Your task to perform on an android device: Add "macbook pro" to the cart on costco.com, then select checkout. Image 0: 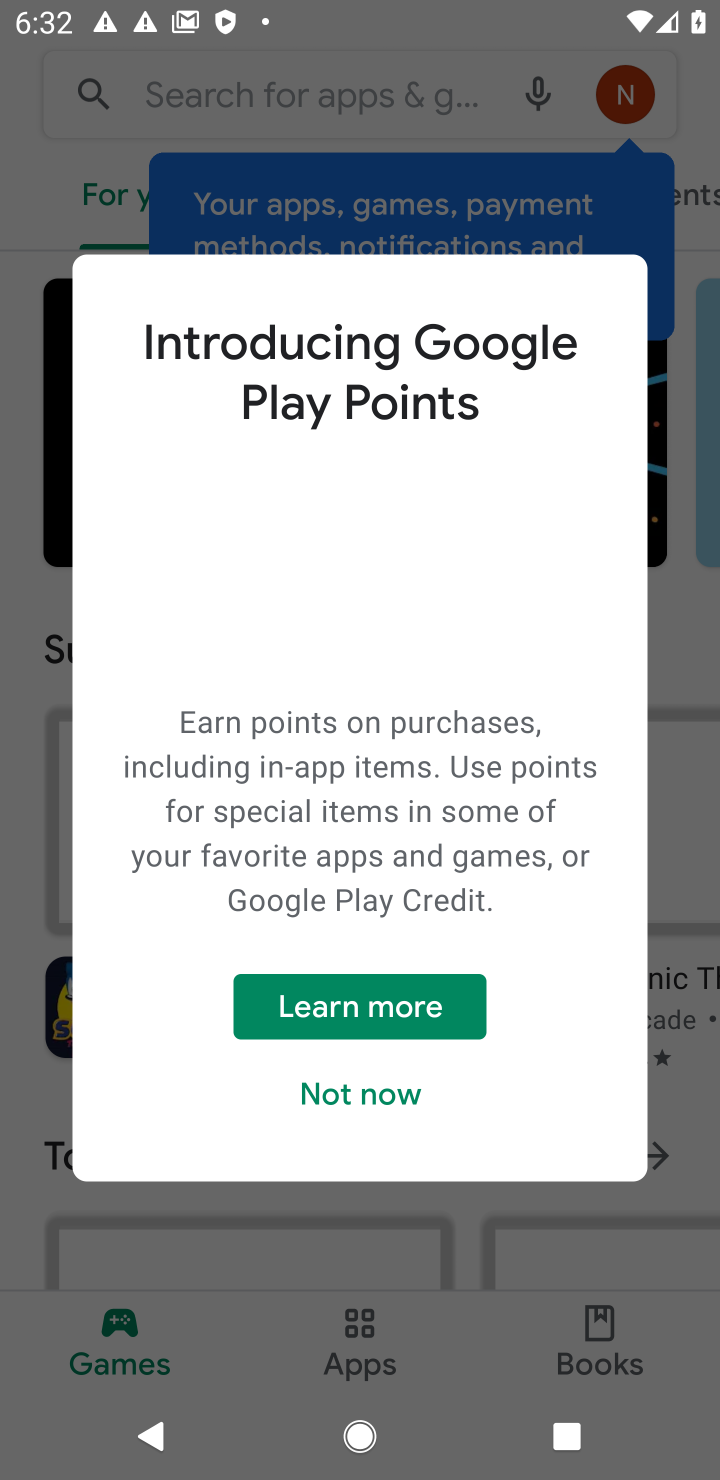
Step 0: press home button
Your task to perform on an android device: Add "macbook pro" to the cart on costco.com, then select checkout. Image 1: 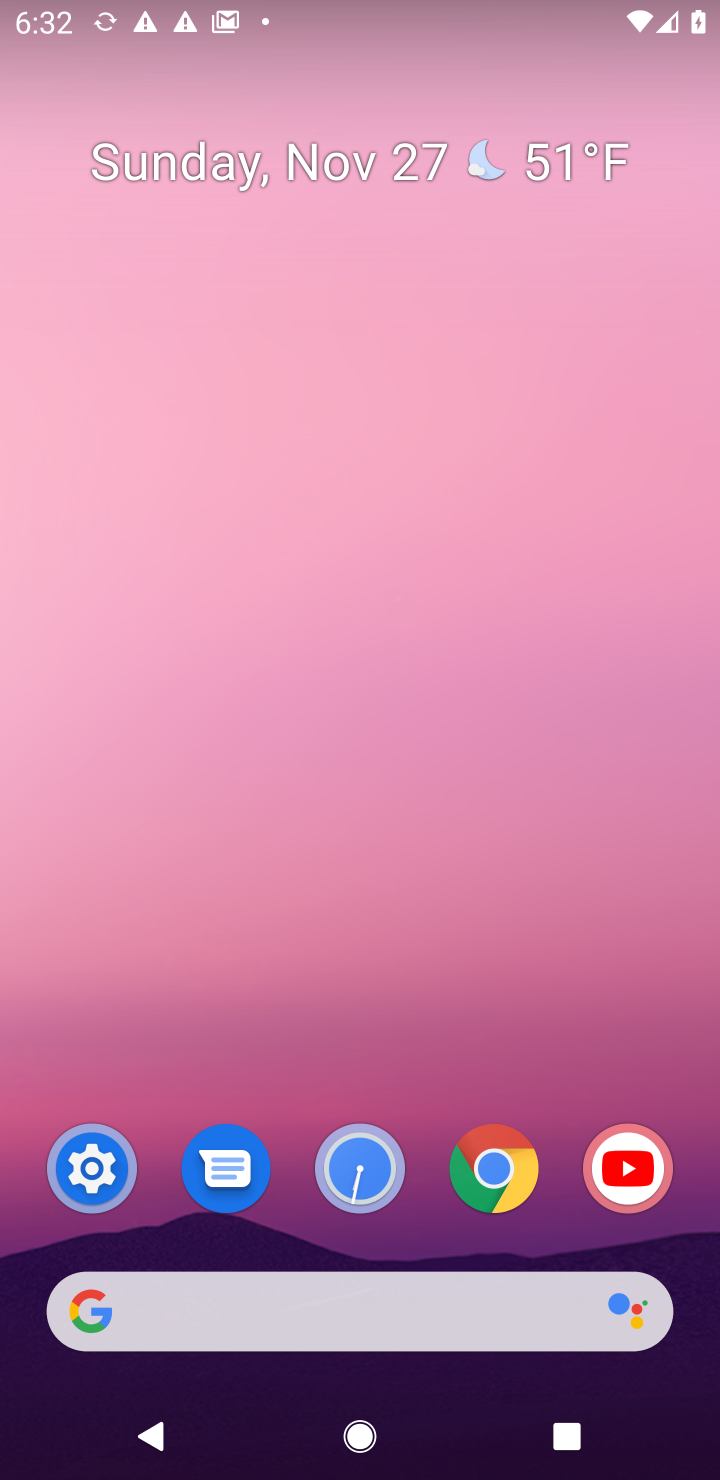
Step 1: click (492, 1167)
Your task to perform on an android device: Add "macbook pro" to the cart on costco.com, then select checkout. Image 2: 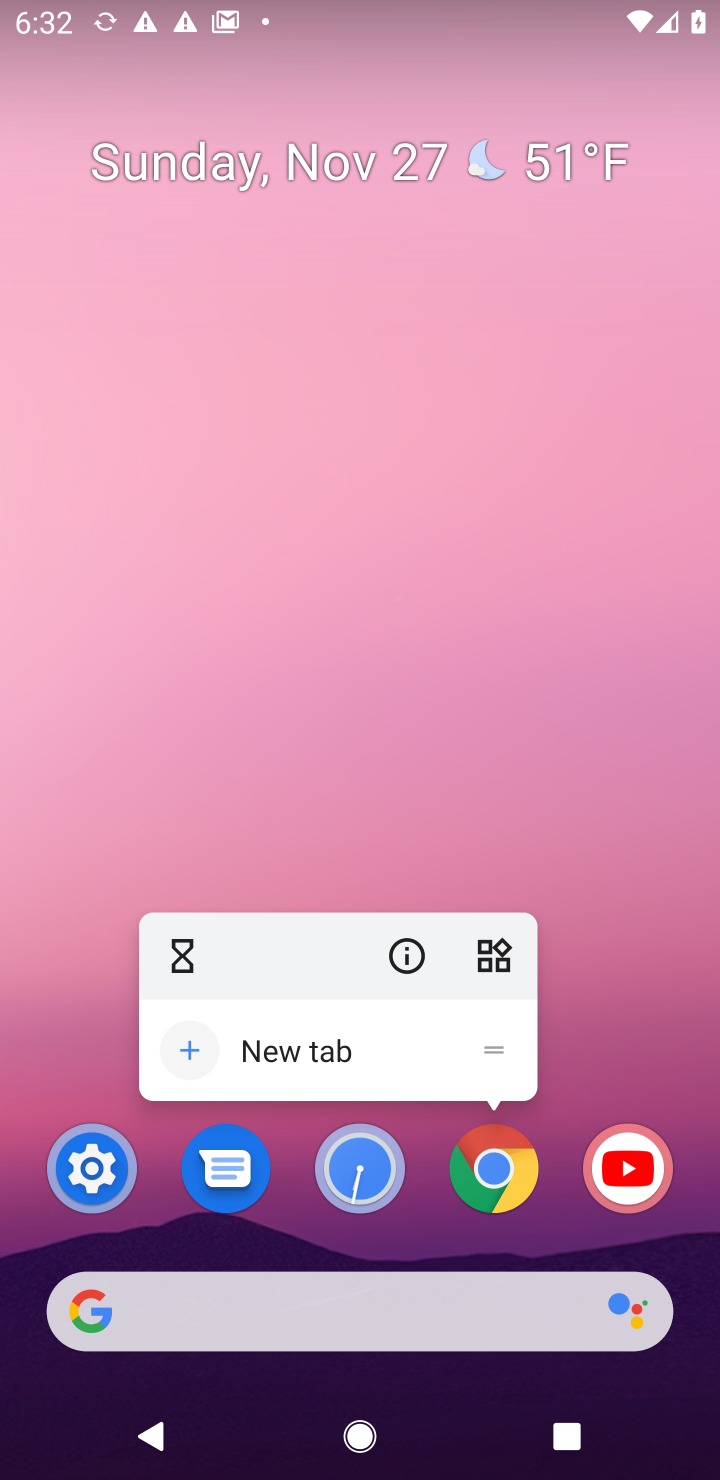
Step 2: click (492, 1167)
Your task to perform on an android device: Add "macbook pro" to the cart on costco.com, then select checkout. Image 3: 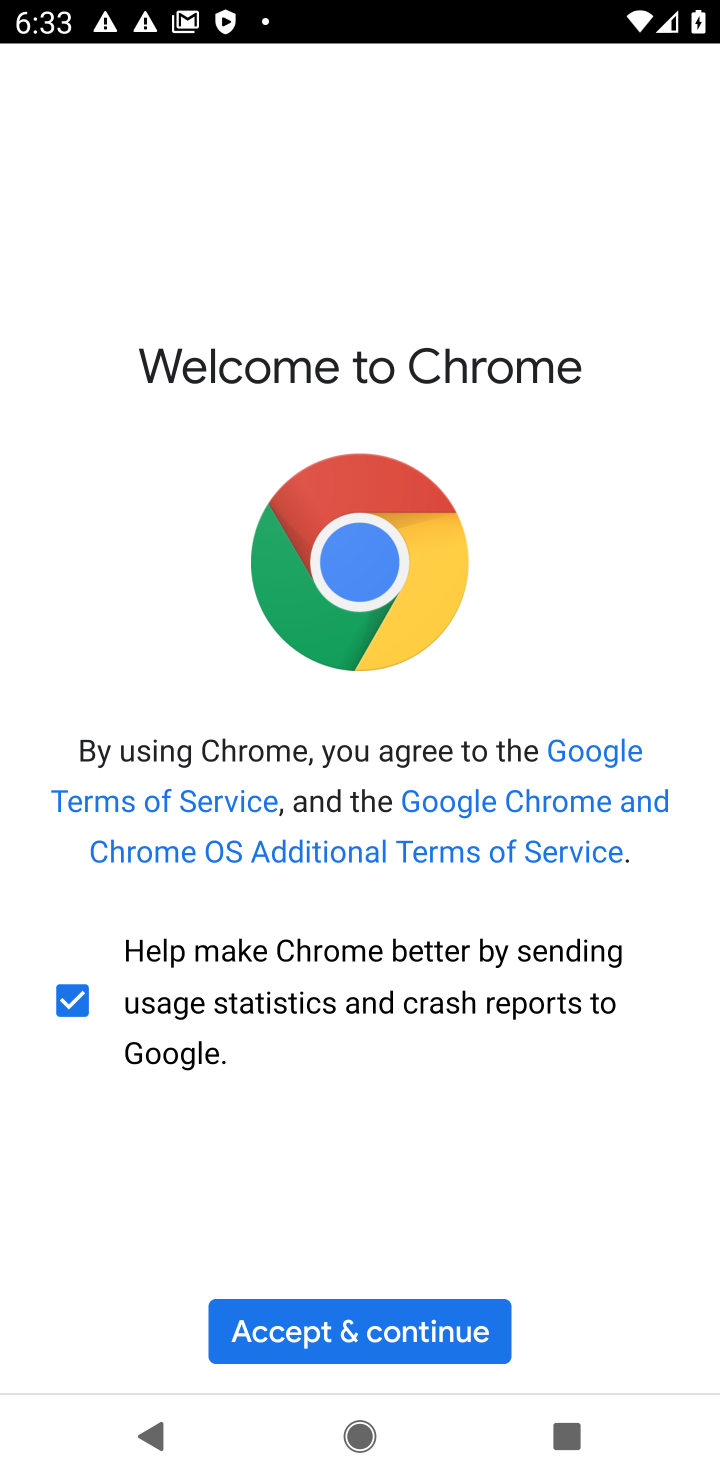
Step 3: click (320, 1326)
Your task to perform on an android device: Add "macbook pro" to the cart on costco.com, then select checkout. Image 4: 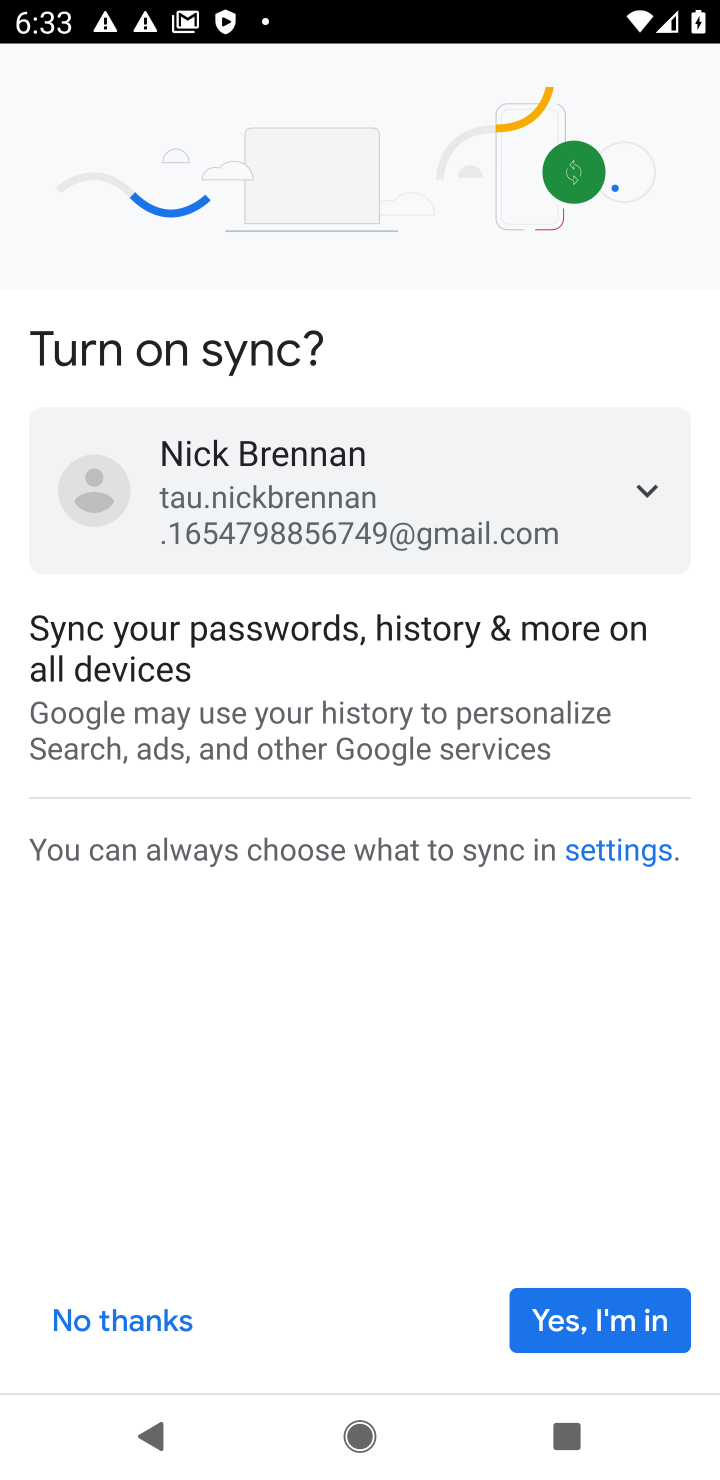
Step 4: click (566, 1316)
Your task to perform on an android device: Add "macbook pro" to the cart on costco.com, then select checkout. Image 5: 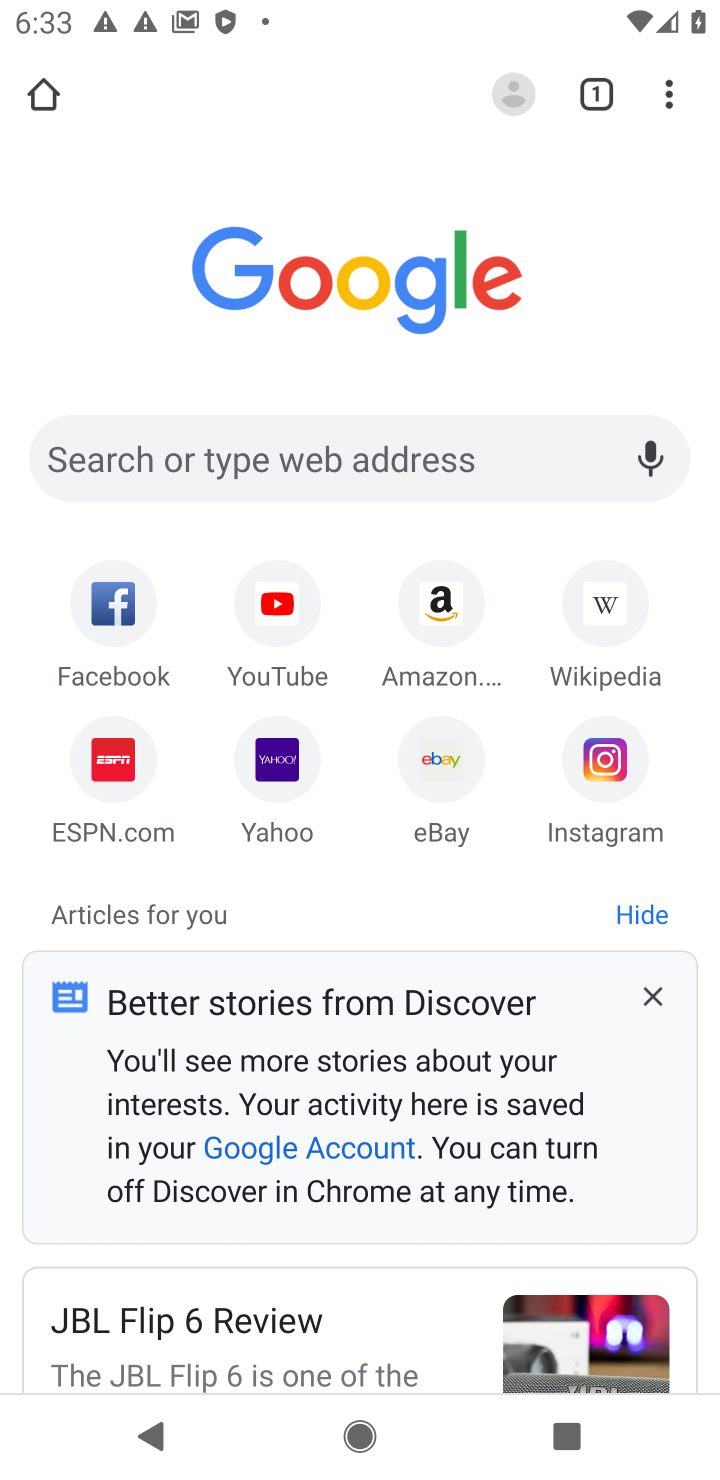
Step 5: click (497, 444)
Your task to perform on an android device: Add "macbook pro" to the cart on costco.com, then select checkout. Image 6: 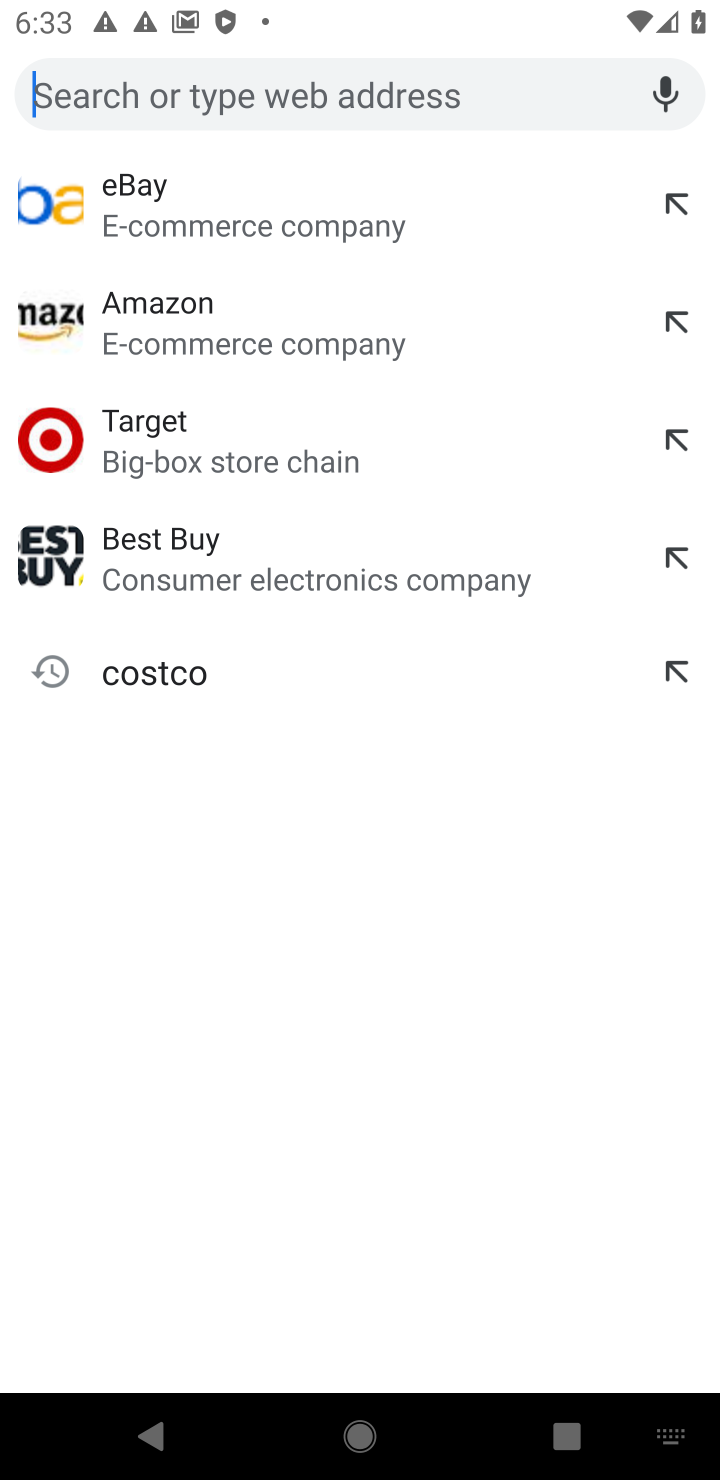
Step 6: type "costco.com"
Your task to perform on an android device: Add "macbook pro" to the cart on costco.com, then select checkout. Image 7: 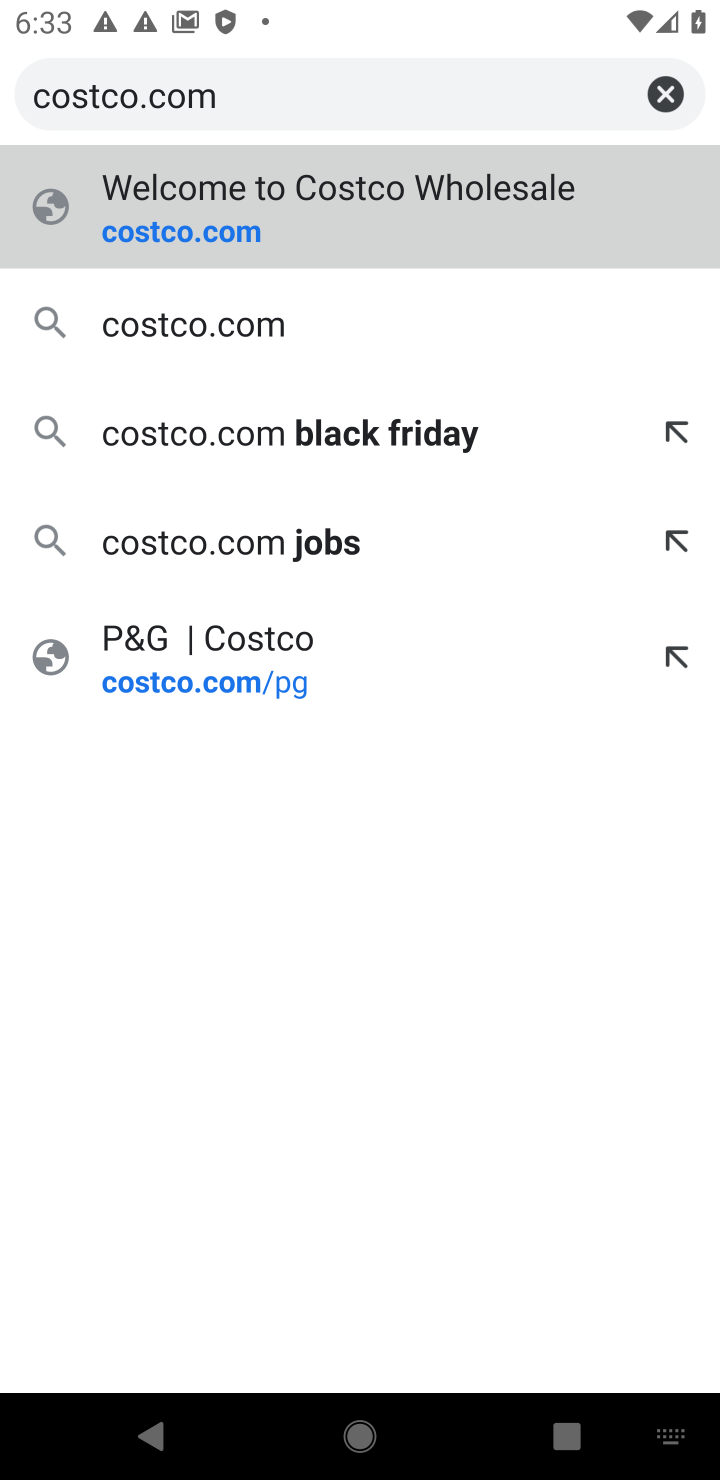
Step 7: click (137, 326)
Your task to perform on an android device: Add "macbook pro" to the cart on costco.com, then select checkout. Image 8: 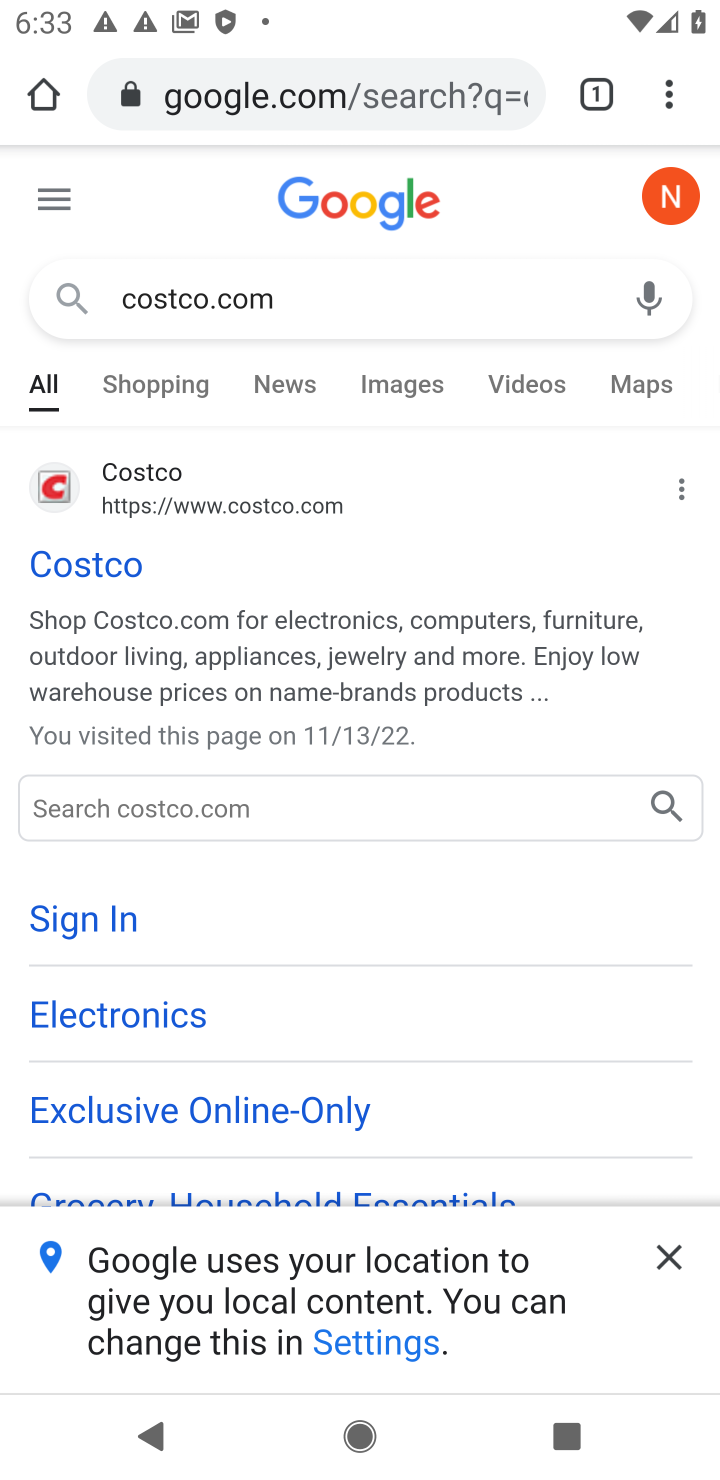
Step 8: click (671, 1250)
Your task to perform on an android device: Add "macbook pro" to the cart on costco.com, then select checkout. Image 9: 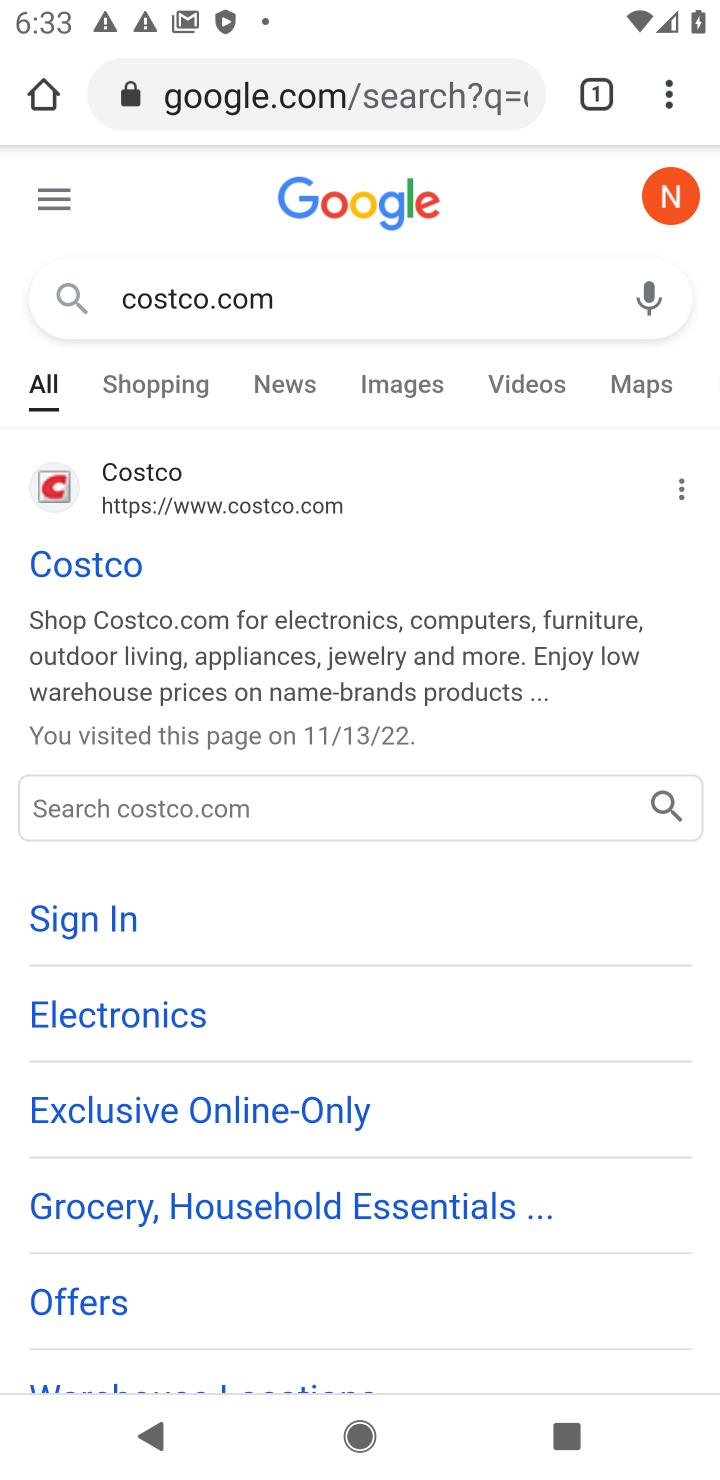
Step 9: click (154, 537)
Your task to perform on an android device: Add "macbook pro" to the cart on costco.com, then select checkout. Image 10: 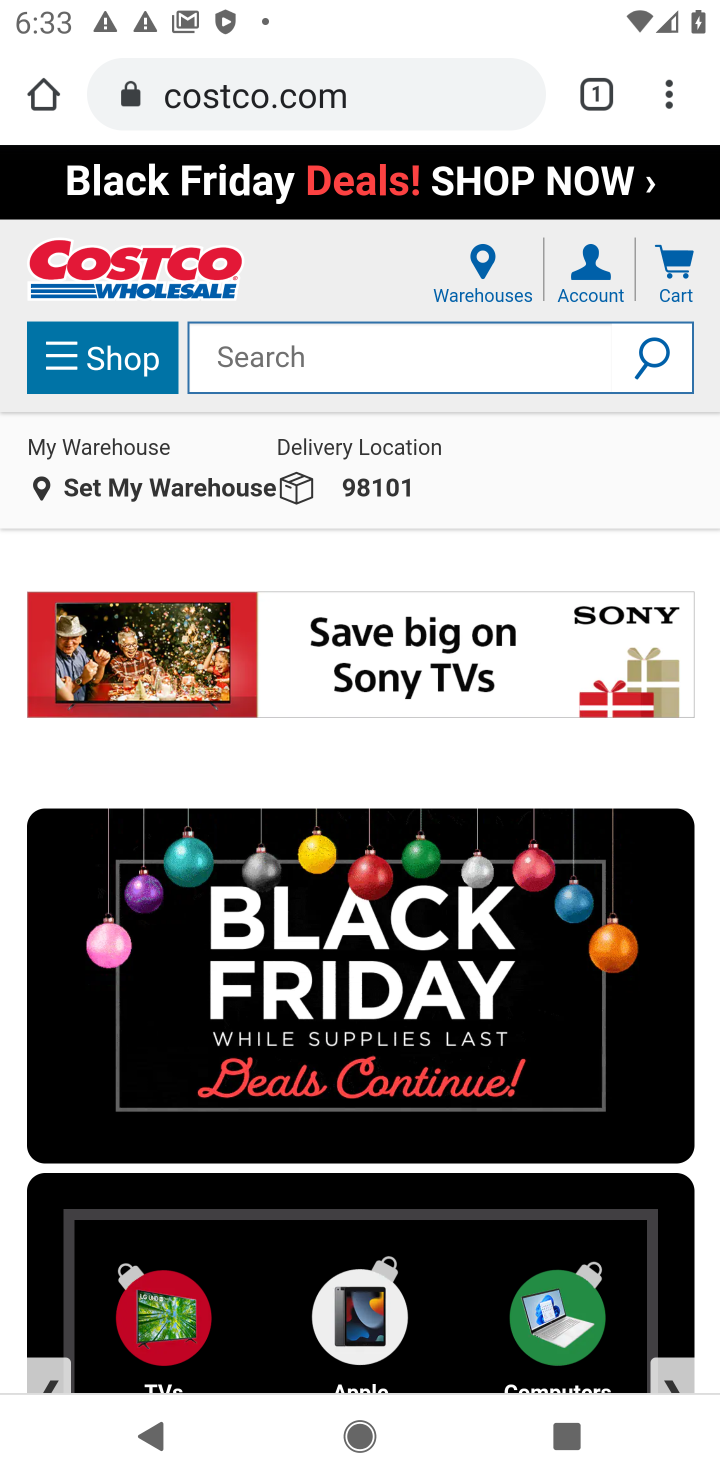
Step 10: click (413, 343)
Your task to perform on an android device: Add "macbook pro" to the cart on costco.com, then select checkout. Image 11: 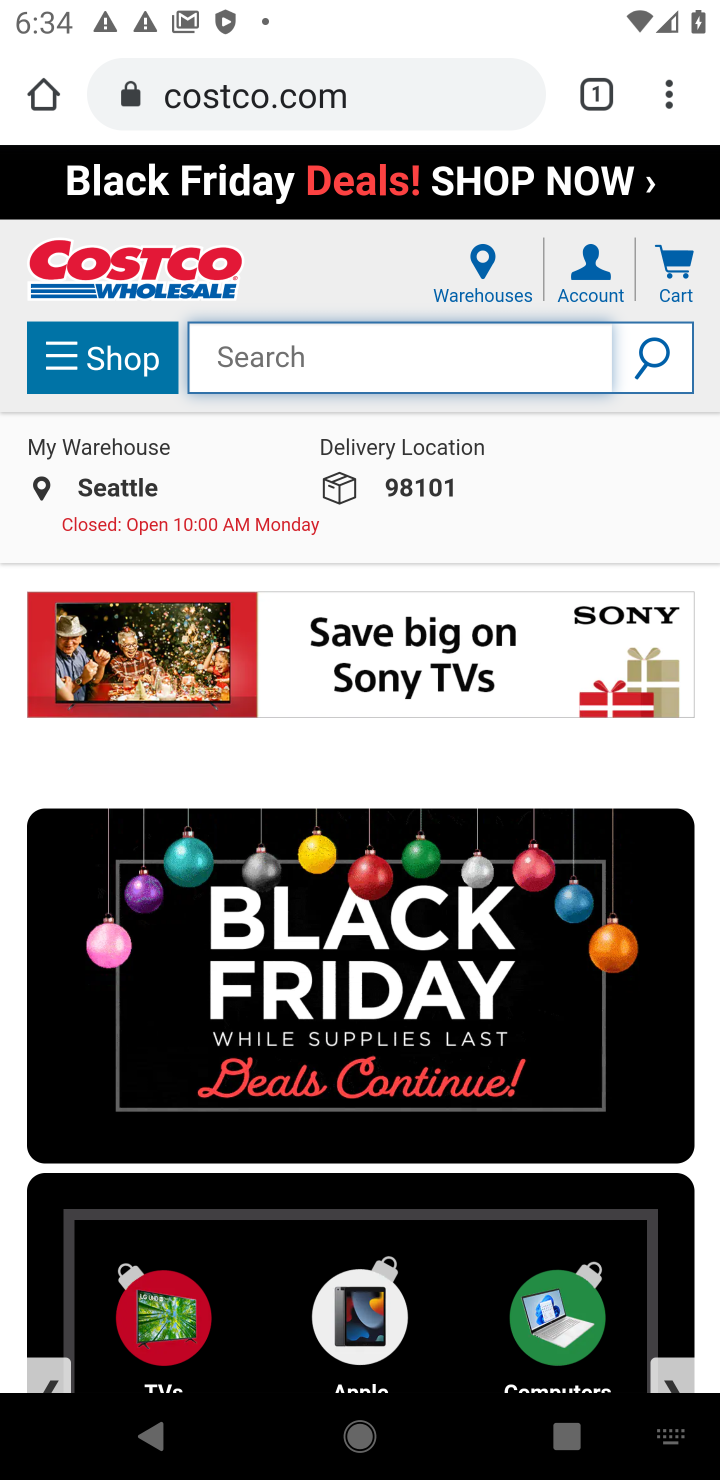
Step 11: type "macbook pro"
Your task to perform on an android device: Add "macbook pro" to the cart on costco.com, then select checkout. Image 12: 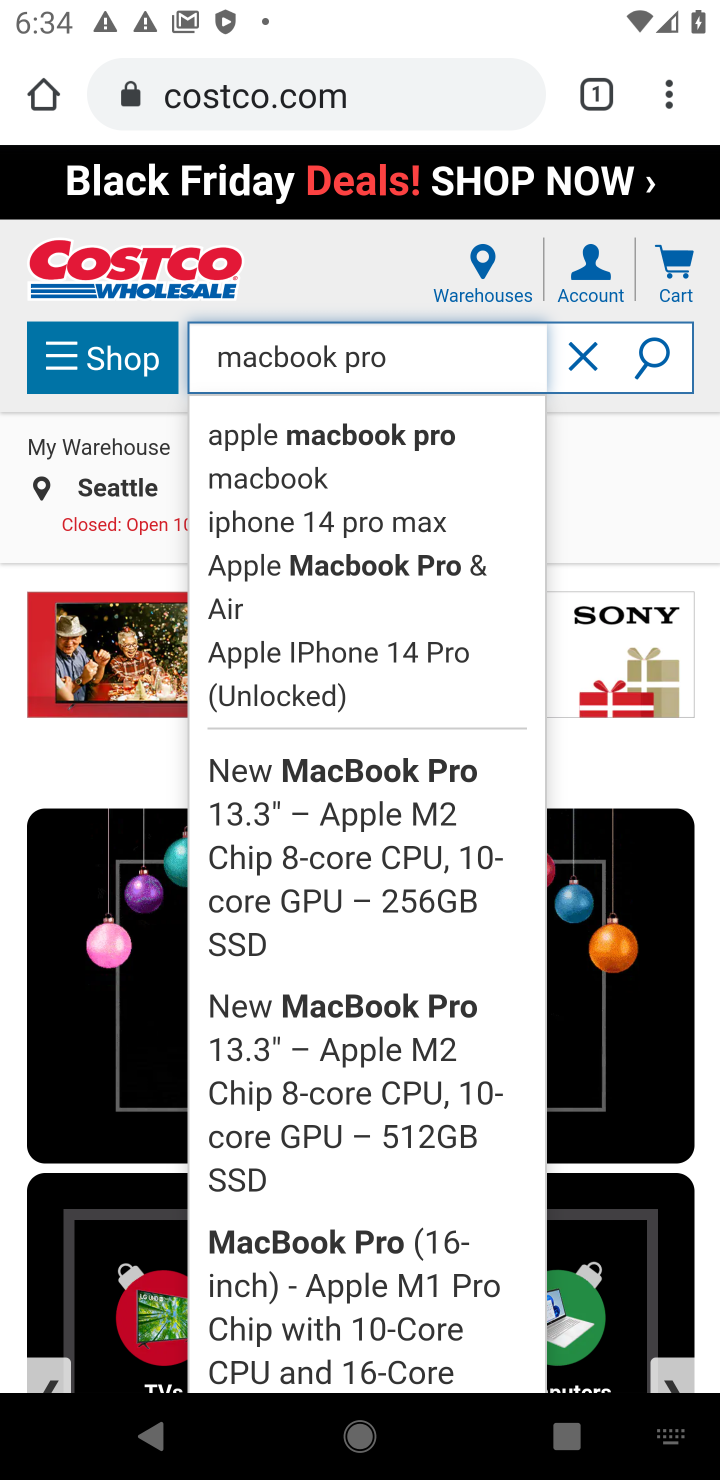
Step 12: click (367, 446)
Your task to perform on an android device: Add "macbook pro" to the cart on costco.com, then select checkout. Image 13: 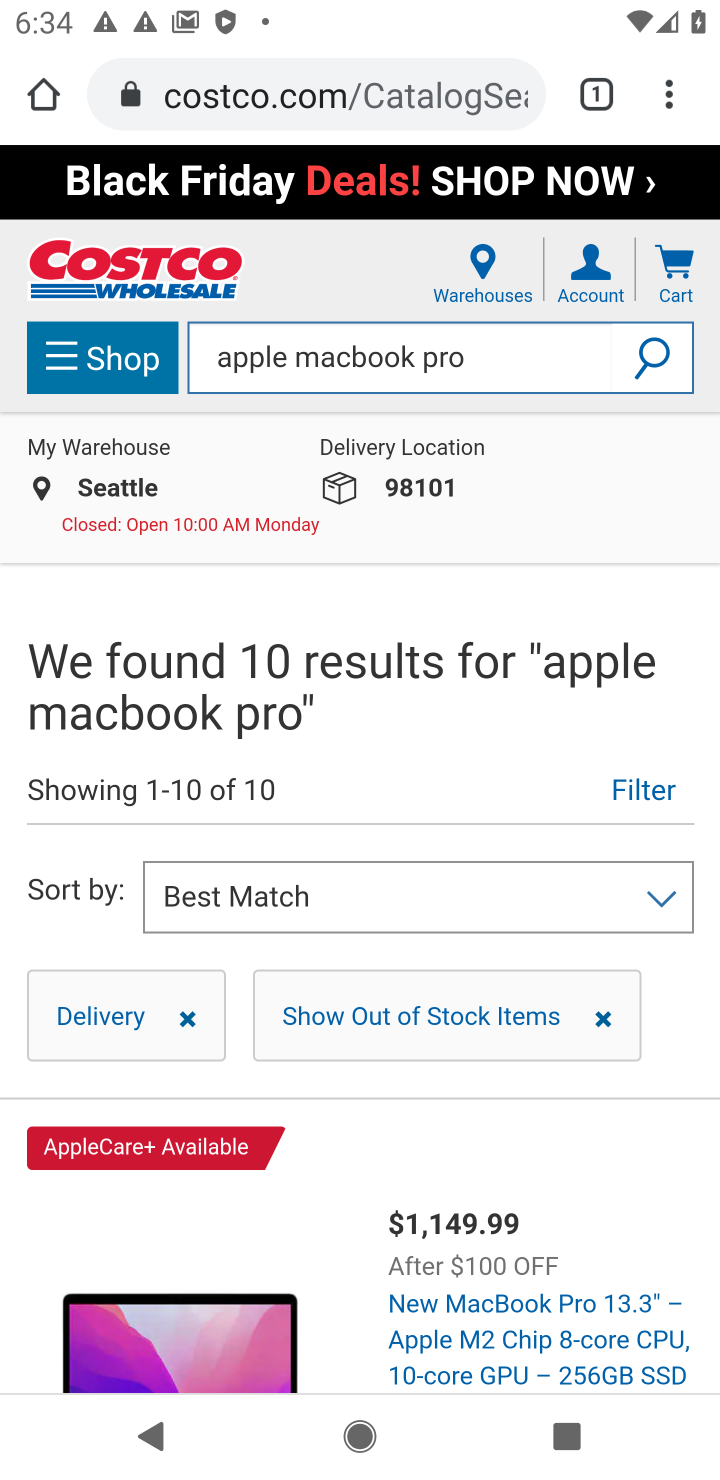
Step 13: drag from (591, 1193) to (685, 641)
Your task to perform on an android device: Add "macbook pro" to the cart on costco.com, then select checkout. Image 14: 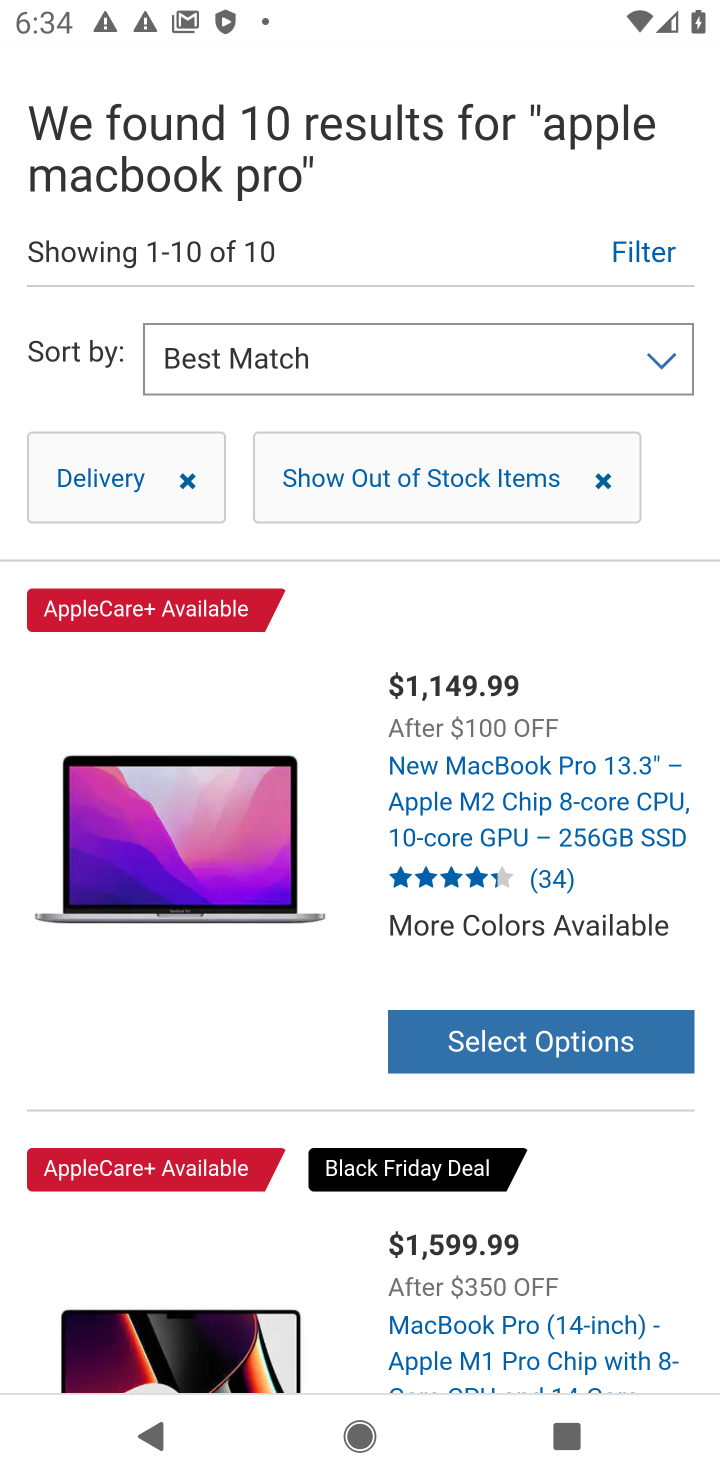
Step 14: click (554, 780)
Your task to perform on an android device: Add "macbook pro" to the cart on costco.com, then select checkout. Image 15: 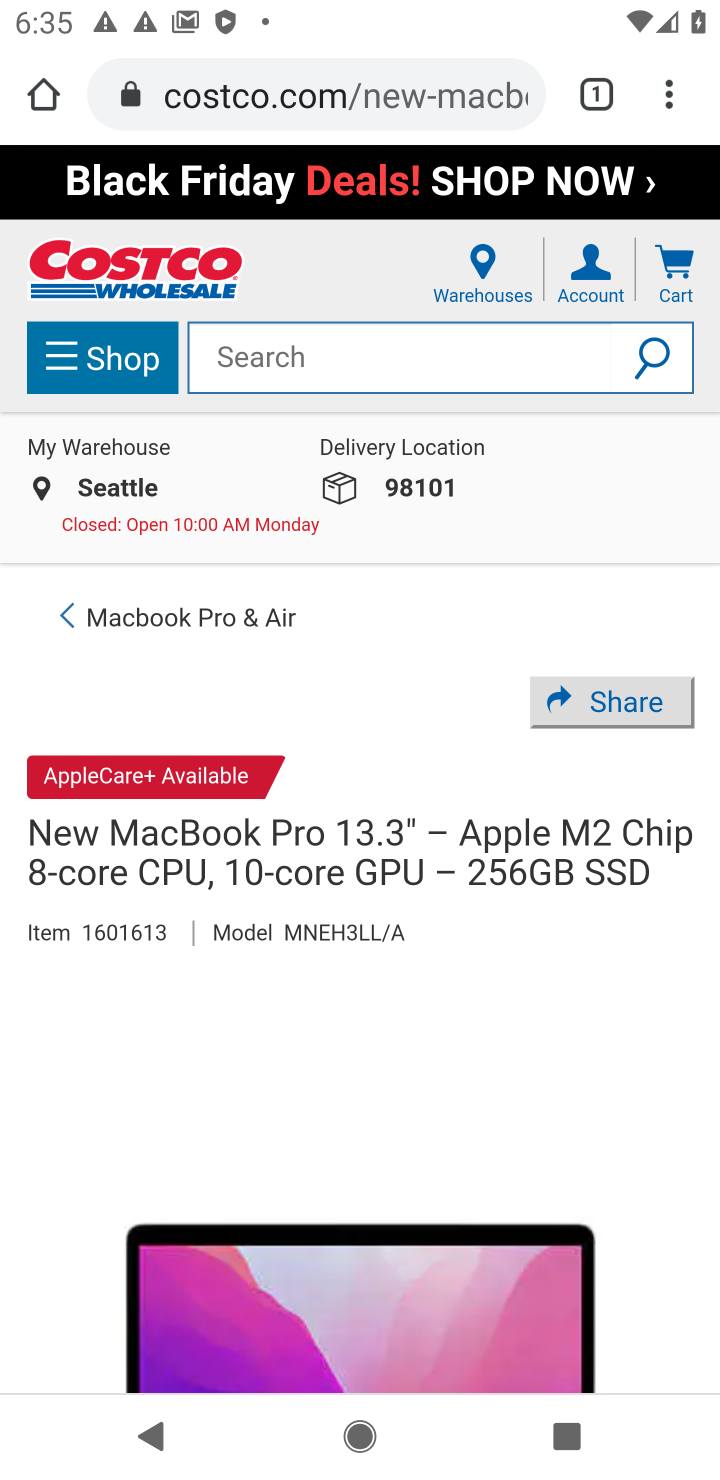
Step 15: drag from (463, 1096) to (605, 436)
Your task to perform on an android device: Add "macbook pro" to the cart on costco.com, then select checkout. Image 16: 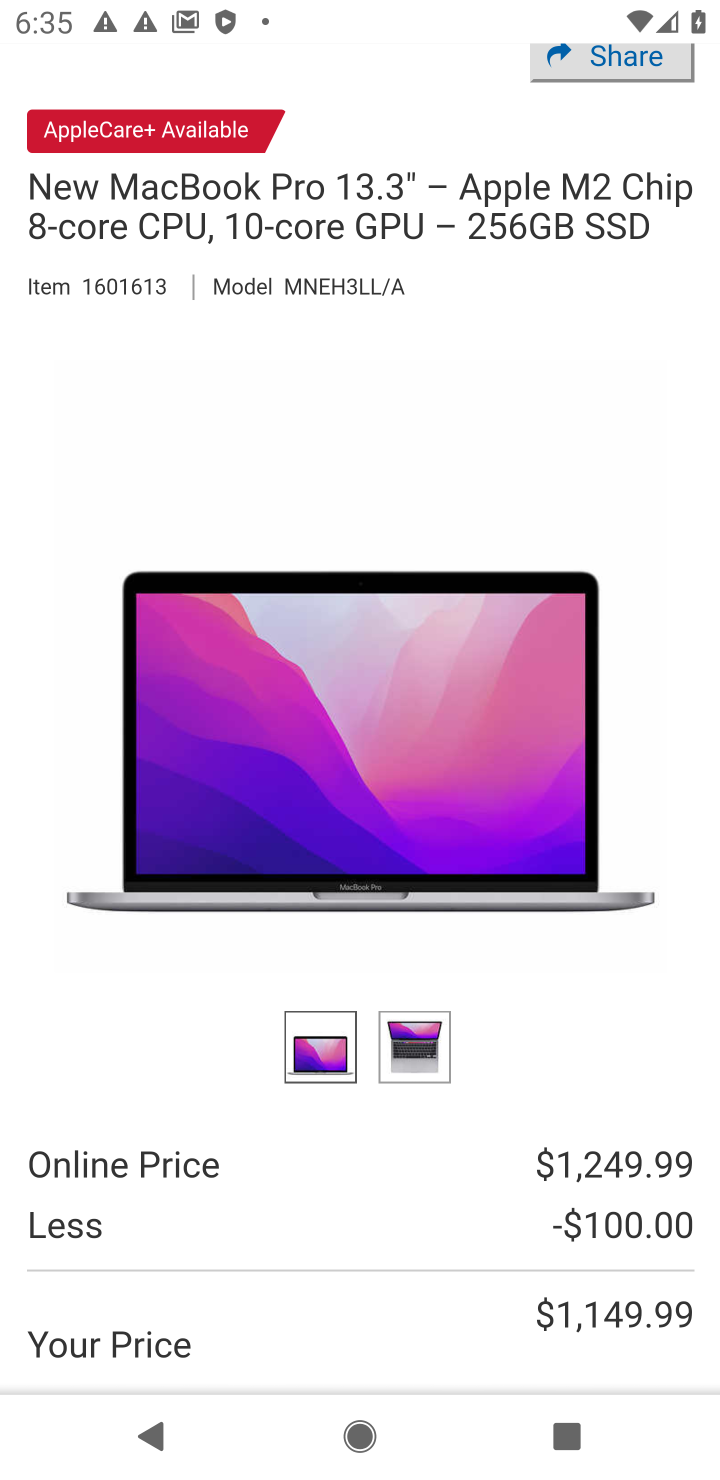
Step 16: drag from (323, 1123) to (481, 680)
Your task to perform on an android device: Add "macbook pro" to the cart on costco.com, then select checkout. Image 17: 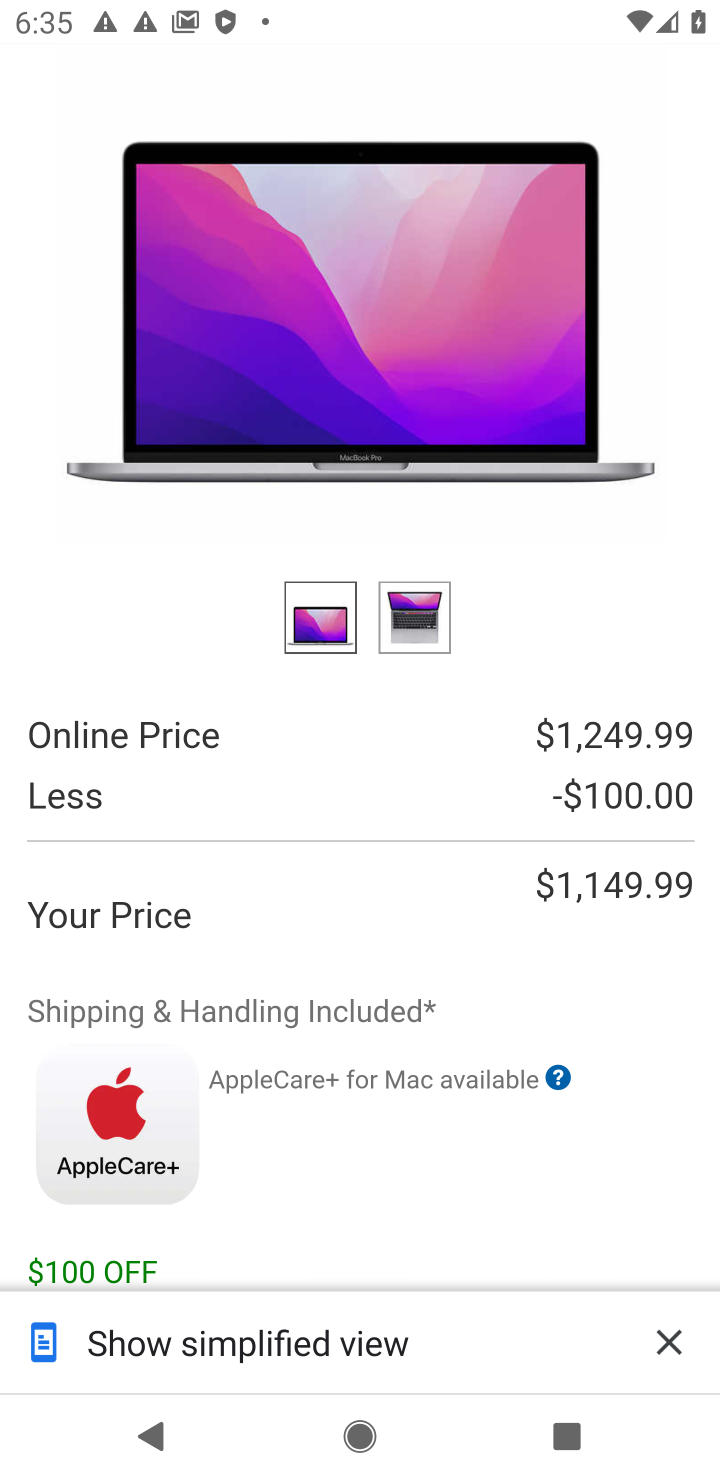
Step 17: drag from (342, 1178) to (428, 715)
Your task to perform on an android device: Add "macbook pro" to the cart on costco.com, then select checkout. Image 18: 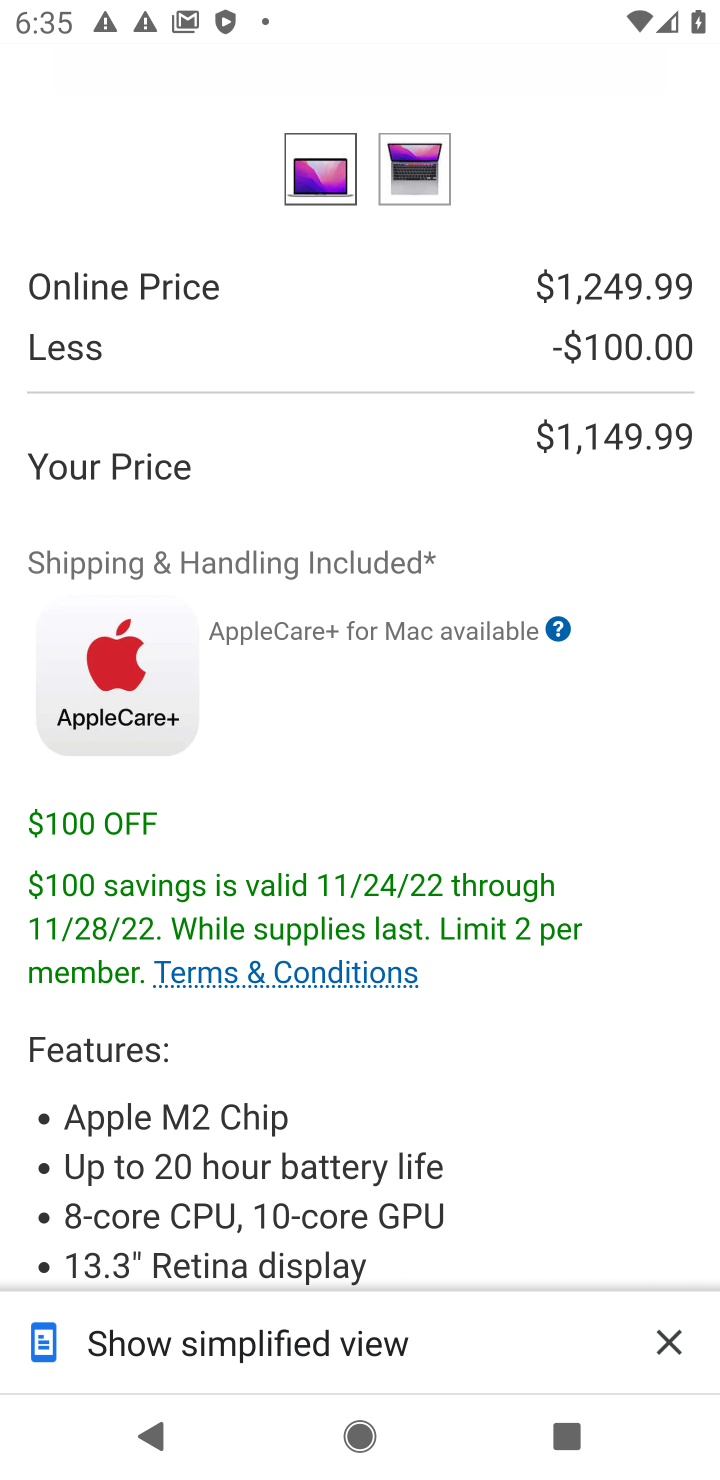
Step 18: drag from (340, 1062) to (519, 640)
Your task to perform on an android device: Add "macbook pro" to the cart on costco.com, then select checkout. Image 19: 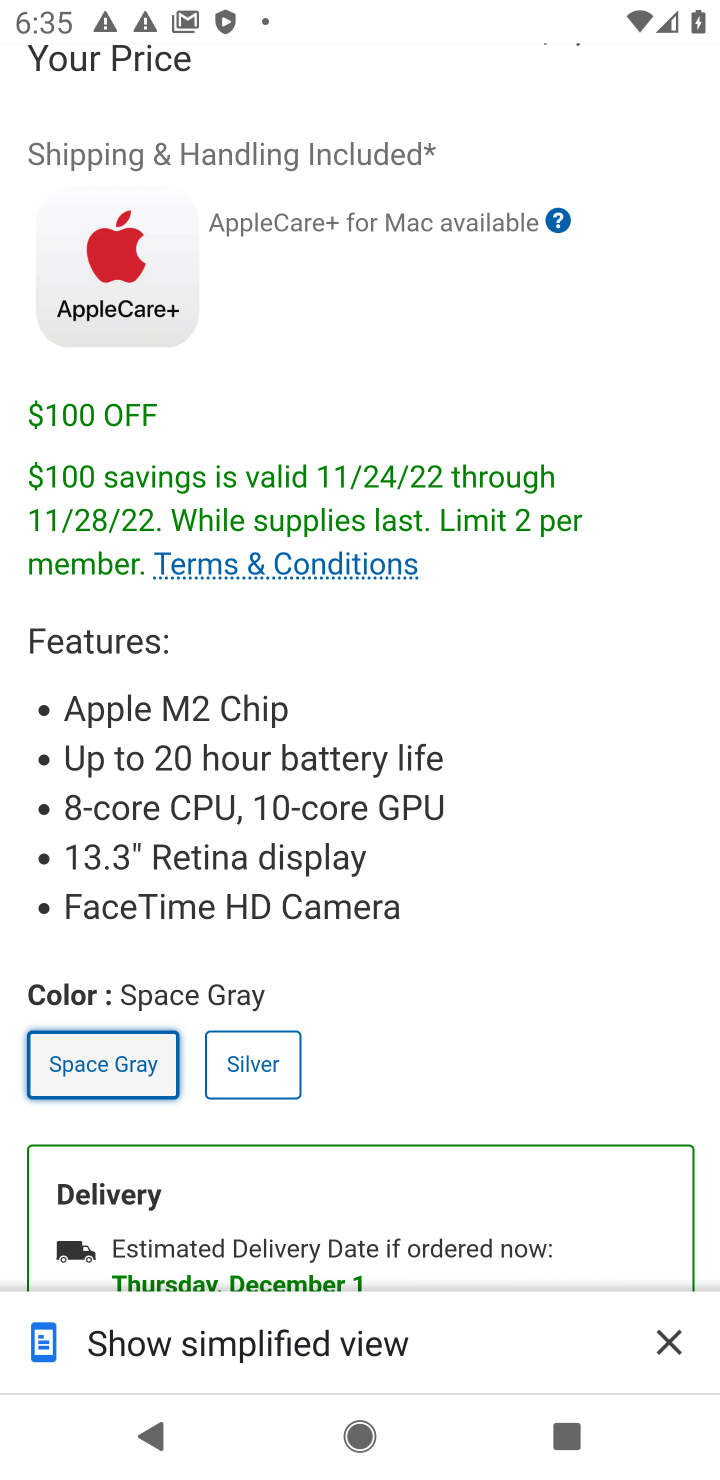
Step 19: drag from (313, 1078) to (391, 699)
Your task to perform on an android device: Add "macbook pro" to the cart on costco.com, then select checkout. Image 20: 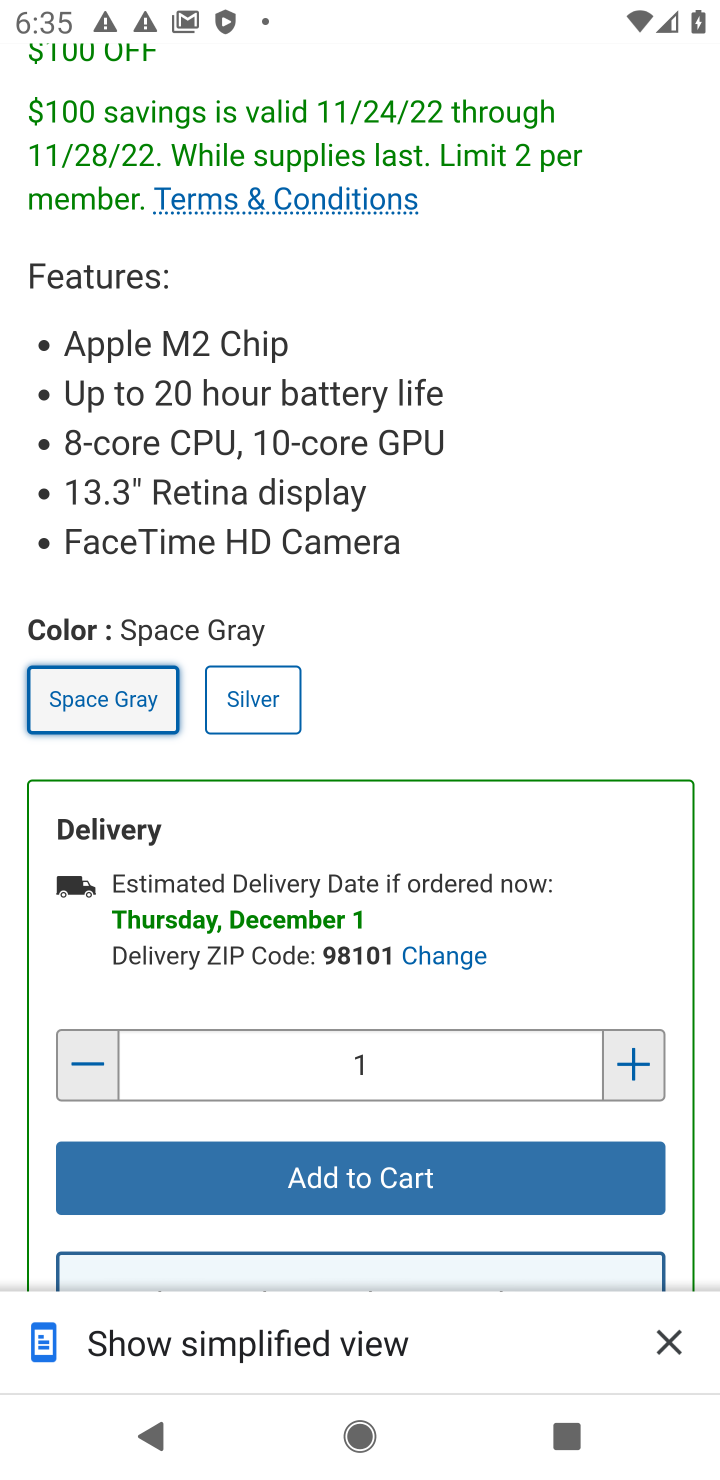
Step 20: drag from (348, 1120) to (549, 476)
Your task to perform on an android device: Add "macbook pro" to the cart on costco.com, then select checkout. Image 21: 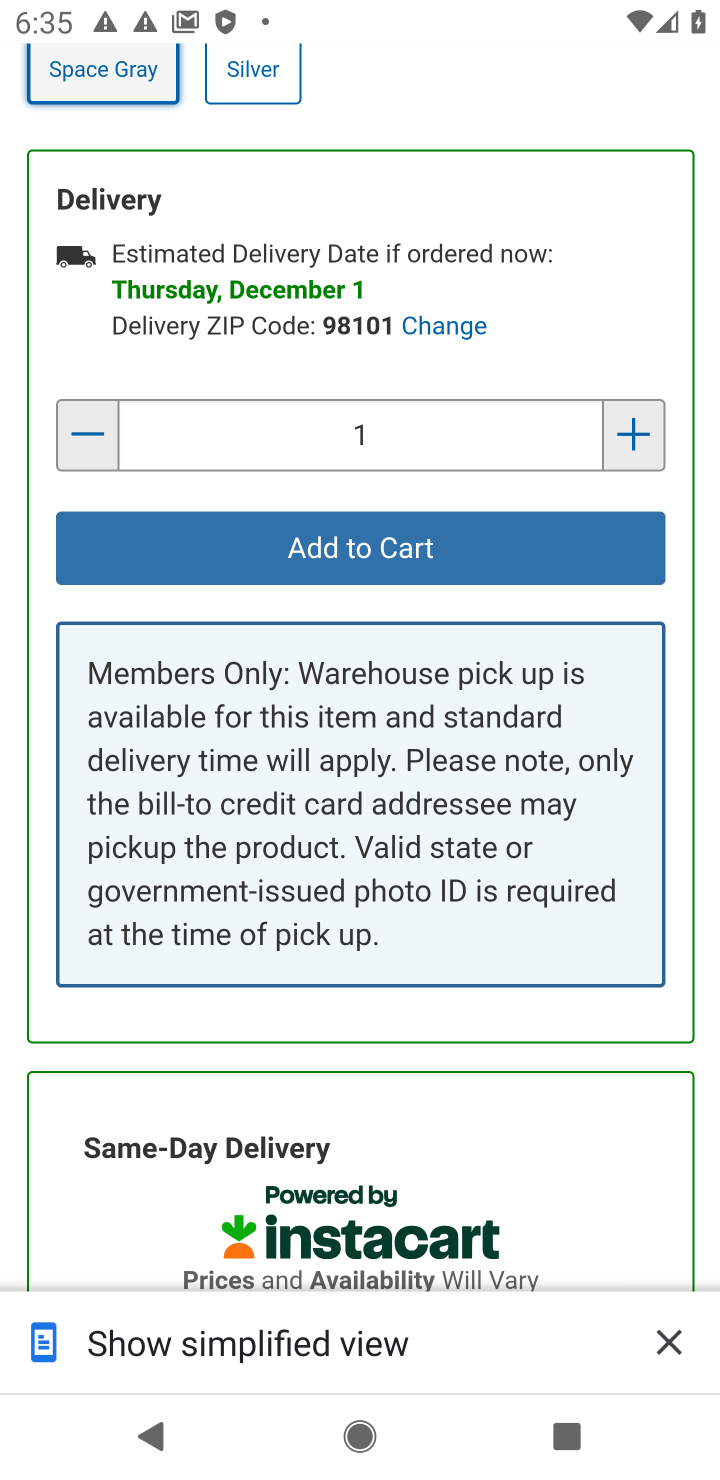
Step 21: drag from (379, 1126) to (545, 437)
Your task to perform on an android device: Add "macbook pro" to the cart on costco.com, then select checkout. Image 22: 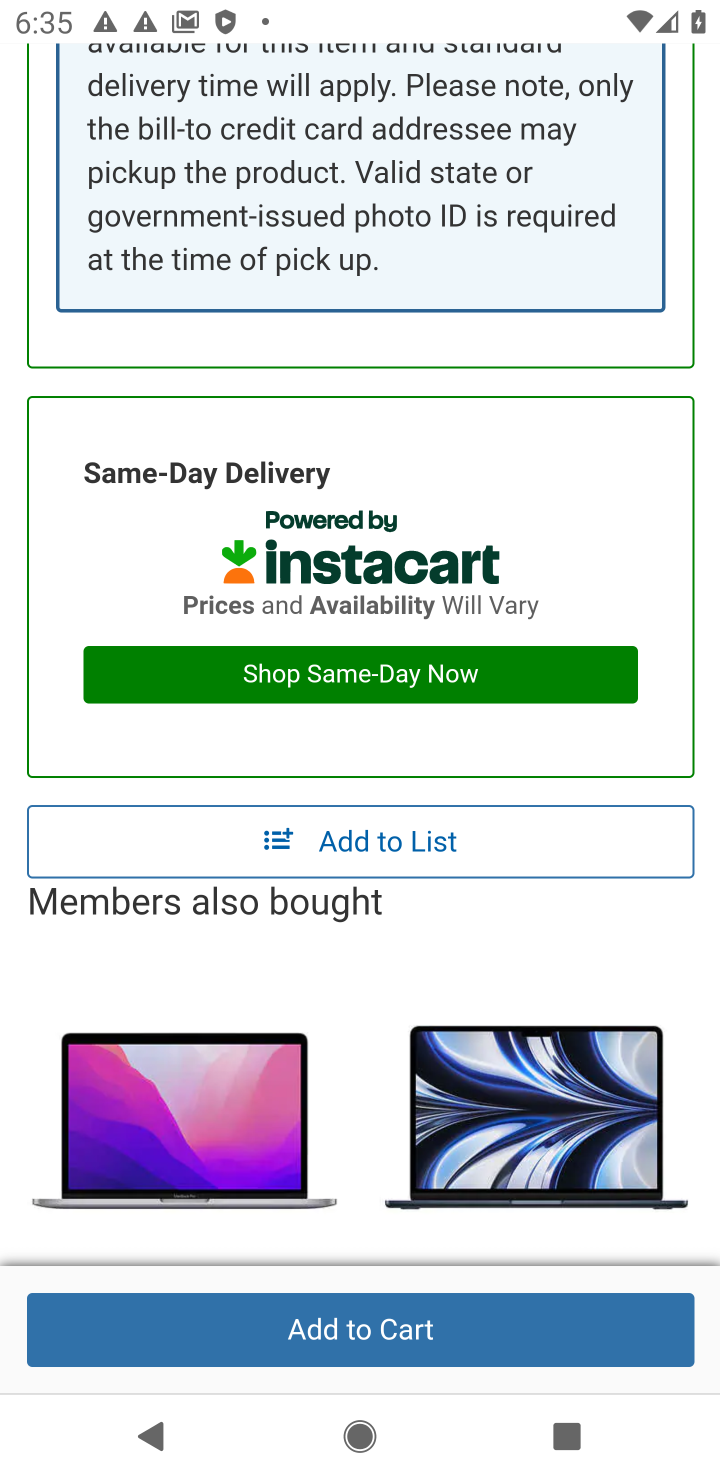
Step 22: drag from (401, 915) to (492, 493)
Your task to perform on an android device: Add "macbook pro" to the cart on costco.com, then select checkout. Image 23: 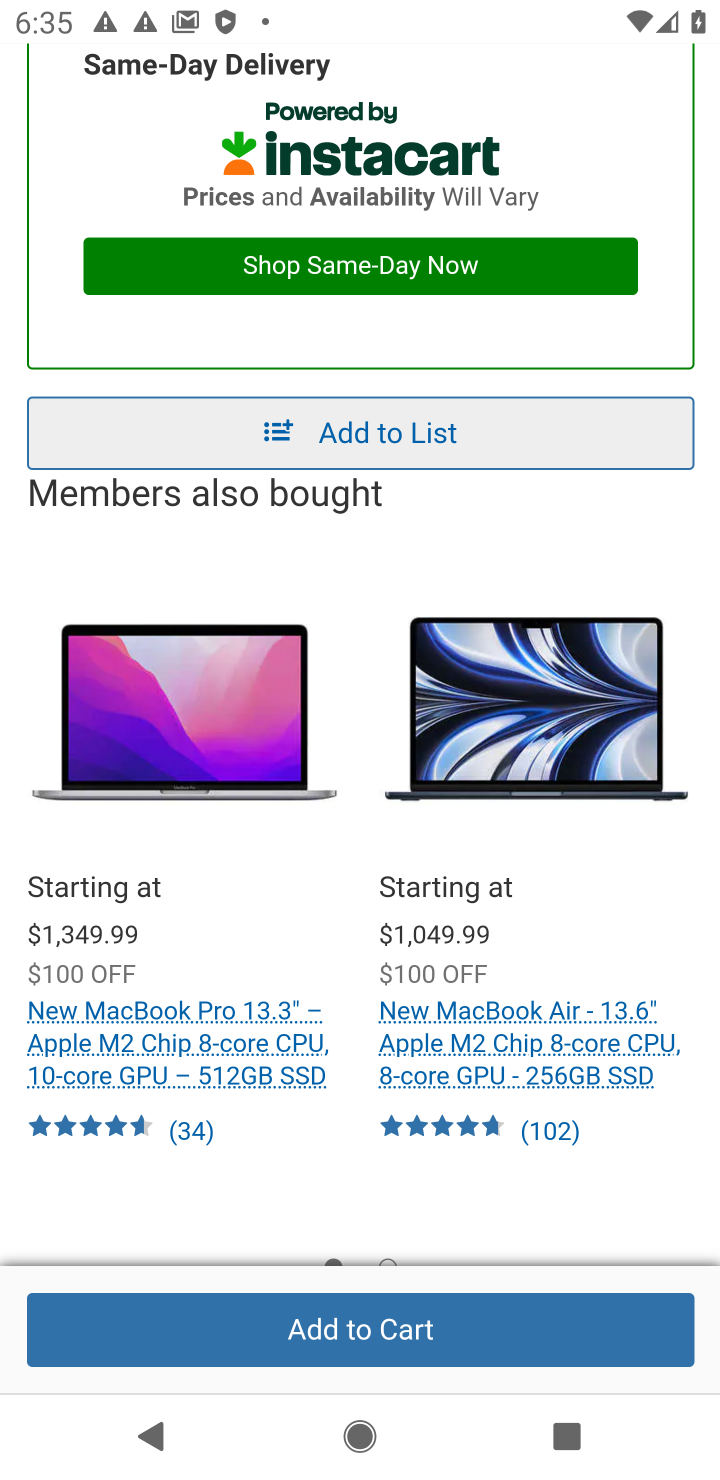
Step 23: click (315, 1334)
Your task to perform on an android device: Add "macbook pro" to the cart on costco.com, then select checkout. Image 24: 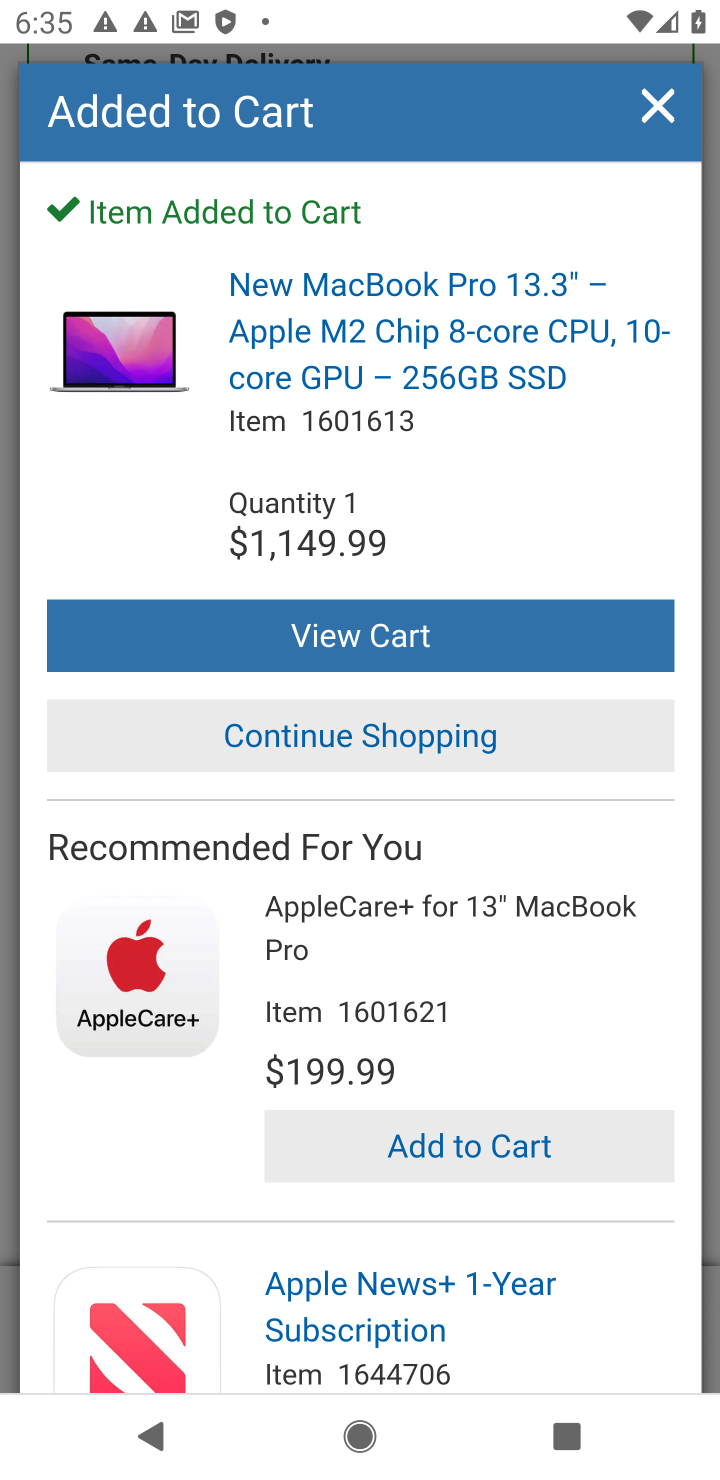
Step 24: click (473, 636)
Your task to perform on an android device: Add "macbook pro" to the cart on costco.com, then select checkout. Image 25: 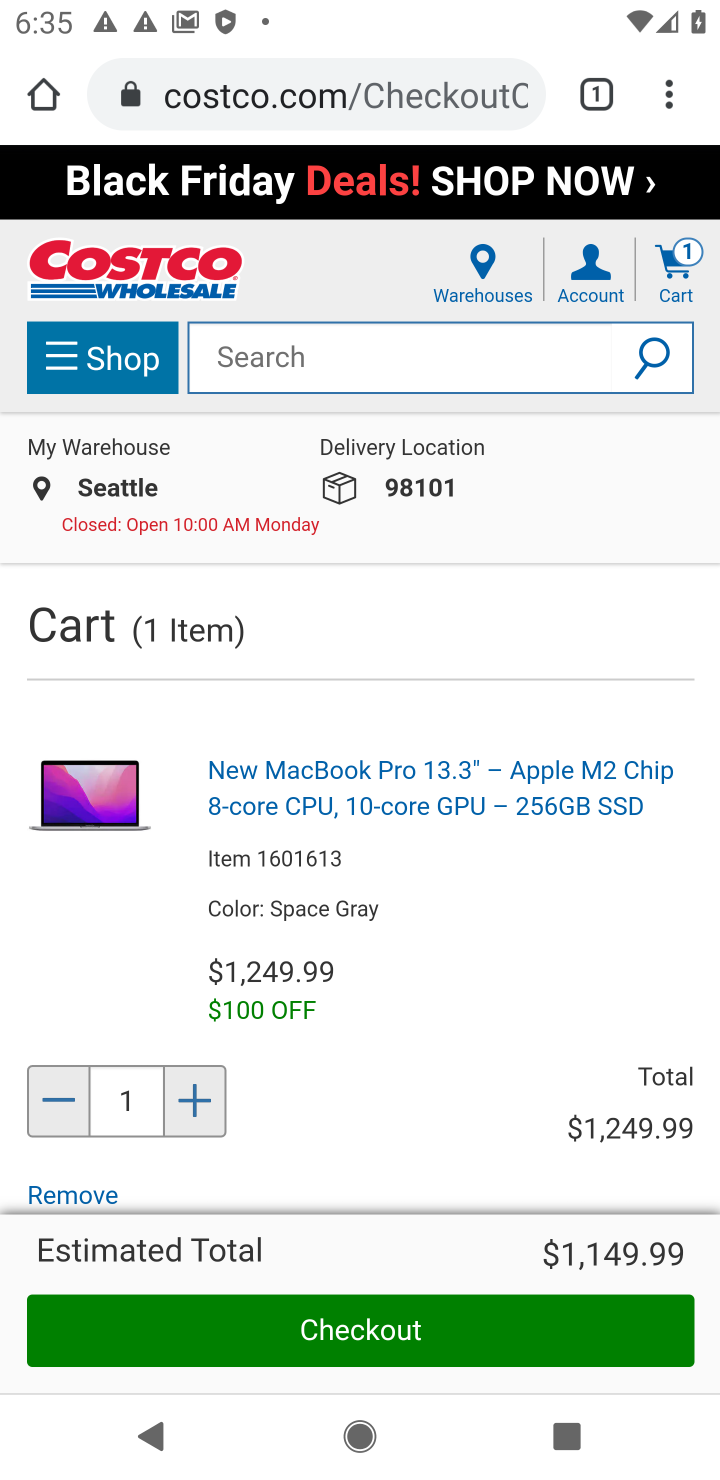
Step 25: click (331, 1322)
Your task to perform on an android device: Add "macbook pro" to the cart on costco.com, then select checkout. Image 26: 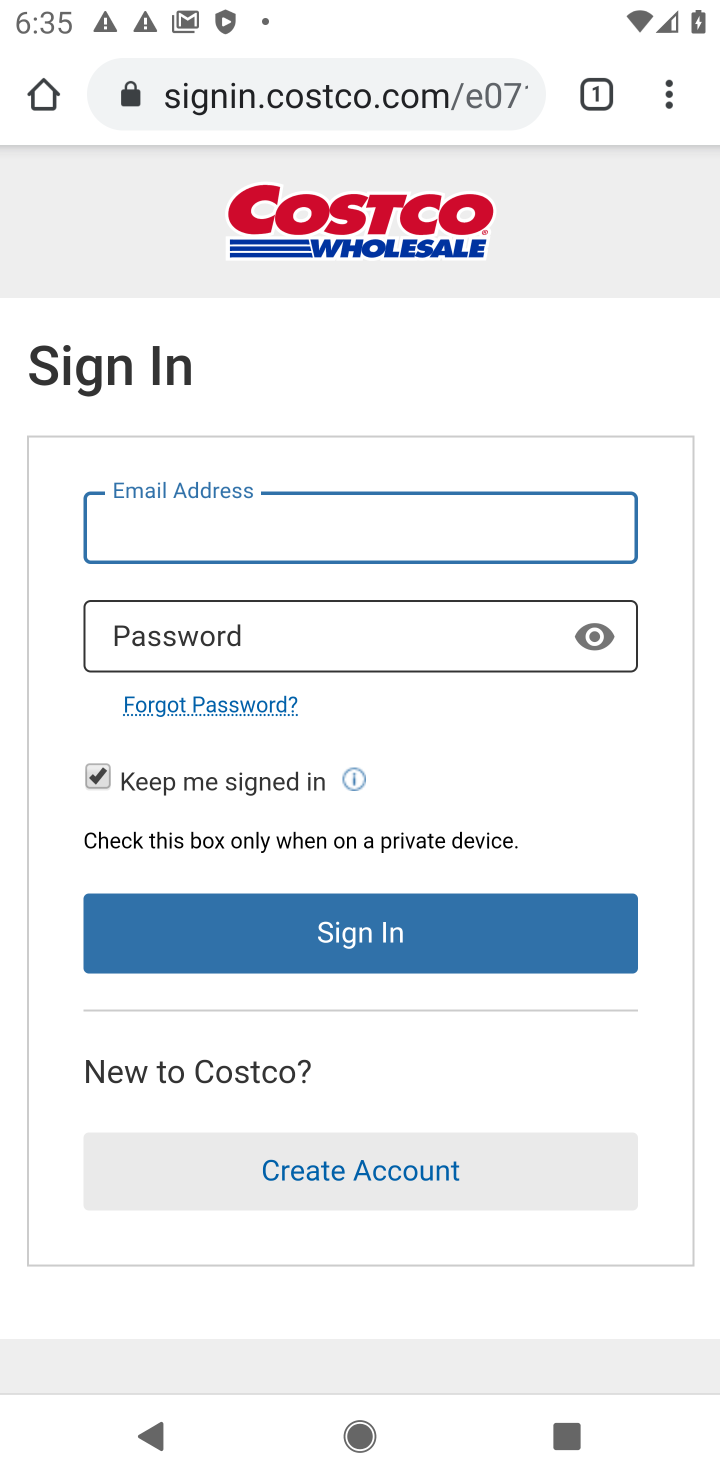
Step 26: task complete